Your task to perform on an android device: manage bookmarks in the chrome app Image 0: 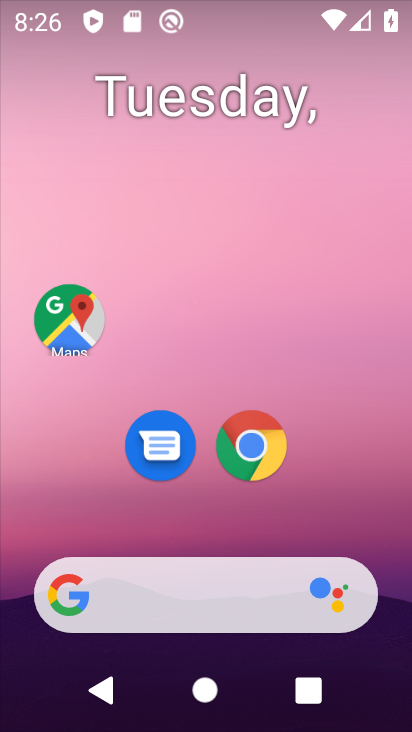
Step 0: drag from (360, 713) to (225, 220)
Your task to perform on an android device: manage bookmarks in the chrome app Image 1: 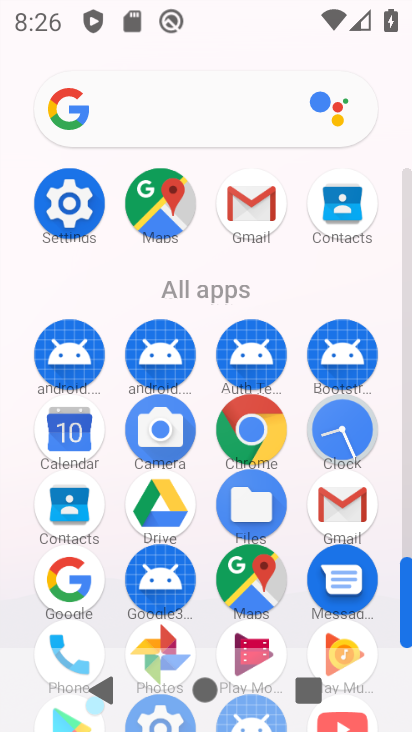
Step 1: click (246, 419)
Your task to perform on an android device: manage bookmarks in the chrome app Image 2: 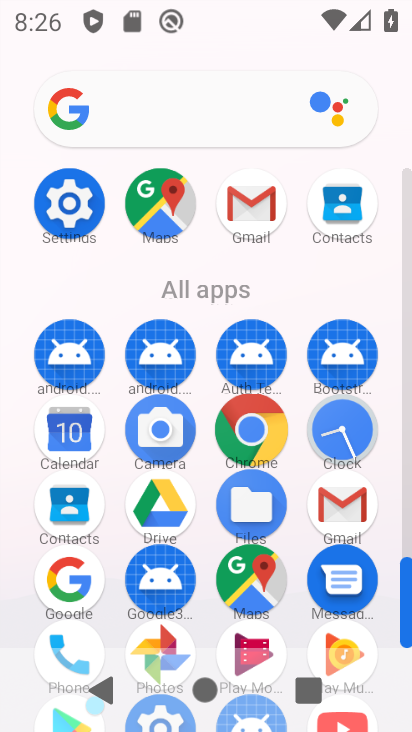
Step 2: click (246, 419)
Your task to perform on an android device: manage bookmarks in the chrome app Image 3: 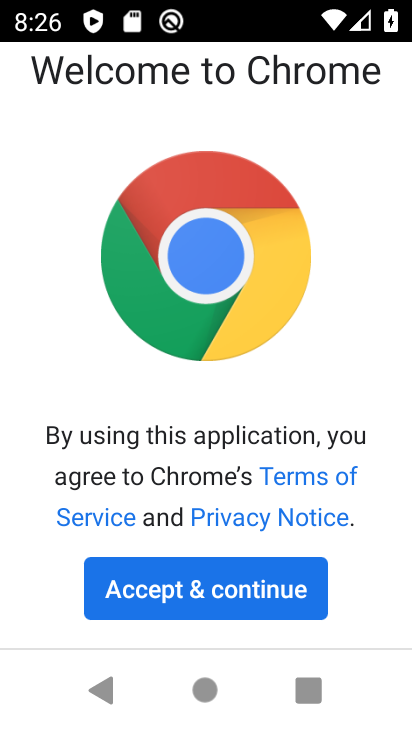
Step 3: click (211, 589)
Your task to perform on an android device: manage bookmarks in the chrome app Image 4: 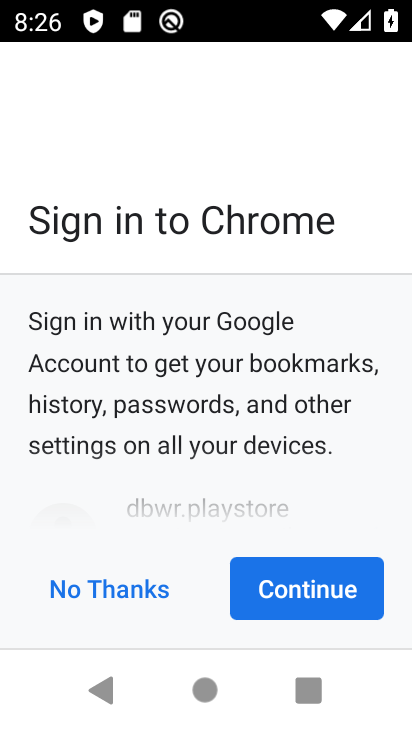
Step 4: click (279, 586)
Your task to perform on an android device: manage bookmarks in the chrome app Image 5: 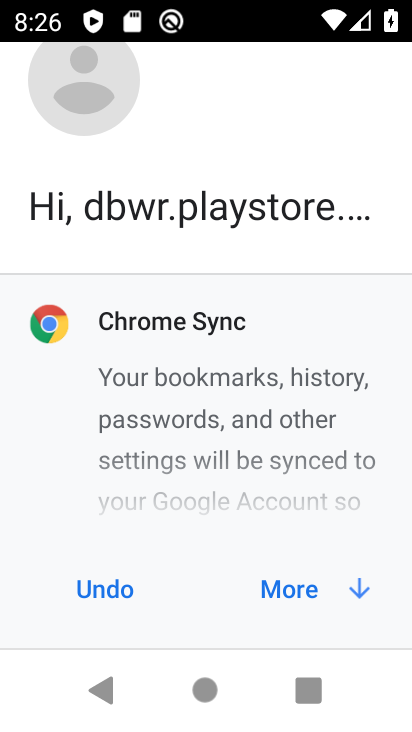
Step 5: click (279, 586)
Your task to perform on an android device: manage bookmarks in the chrome app Image 6: 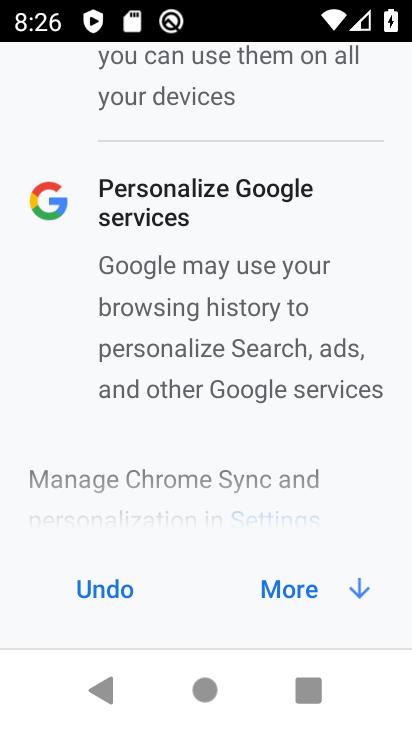
Step 6: click (284, 589)
Your task to perform on an android device: manage bookmarks in the chrome app Image 7: 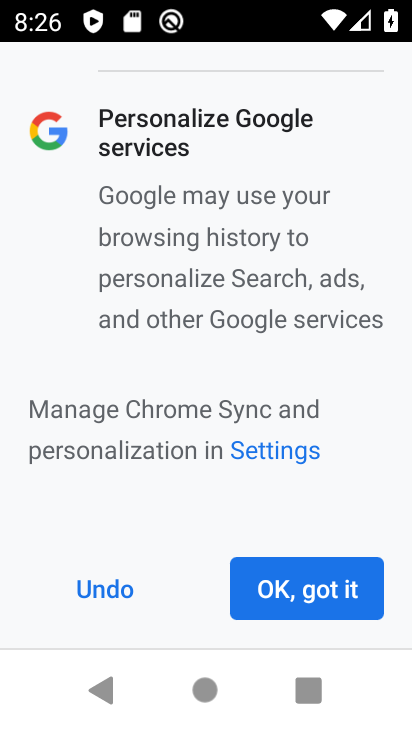
Step 7: click (291, 585)
Your task to perform on an android device: manage bookmarks in the chrome app Image 8: 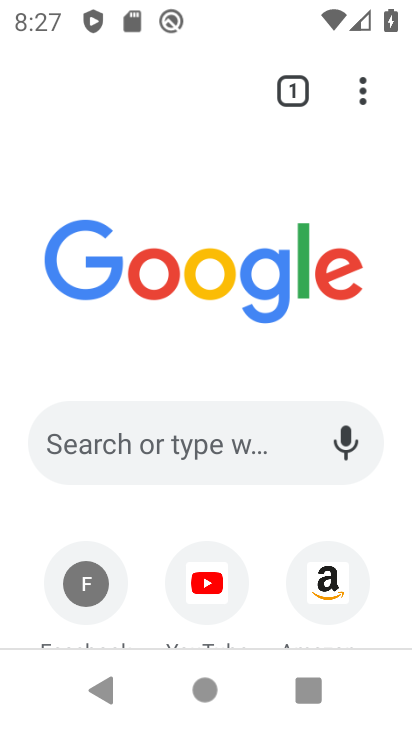
Step 8: drag from (358, 97) to (162, 352)
Your task to perform on an android device: manage bookmarks in the chrome app Image 9: 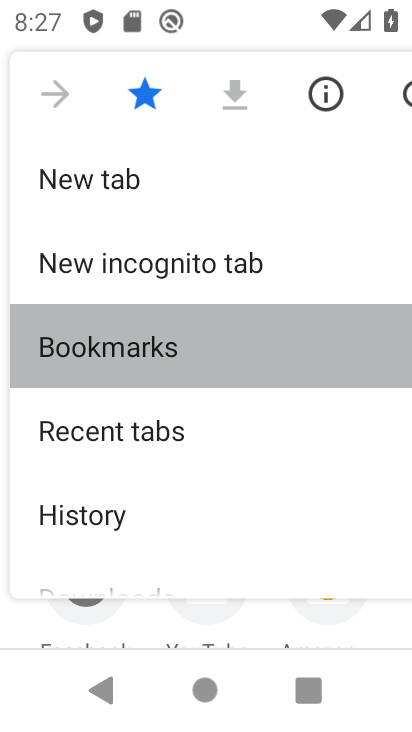
Step 9: click (163, 352)
Your task to perform on an android device: manage bookmarks in the chrome app Image 10: 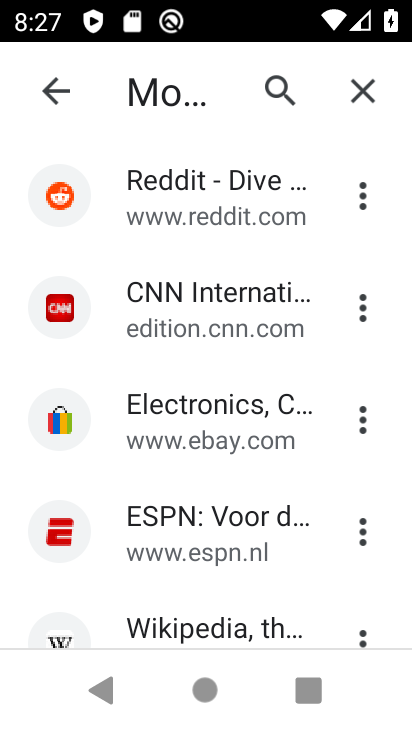
Step 10: click (359, 193)
Your task to perform on an android device: manage bookmarks in the chrome app Image 11: 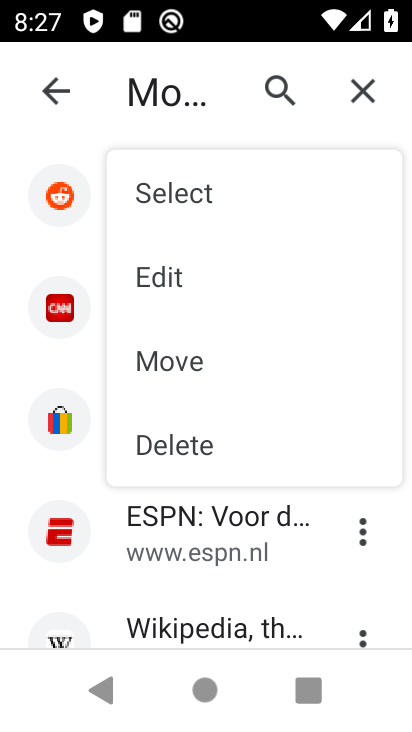
Step 11: click (146, 284)
Your task to perform on an android device: manage bookmarks in the chrome app Image 12: 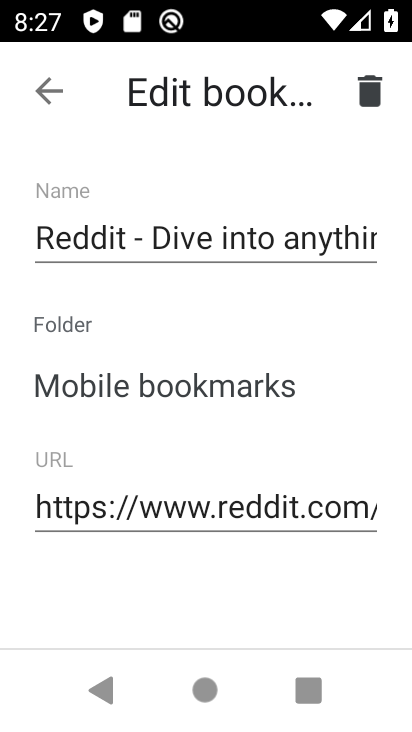
Step 12: click (367, 96)
Your task to perform on an android device: manage bookmarks in the chrome app Image 13: 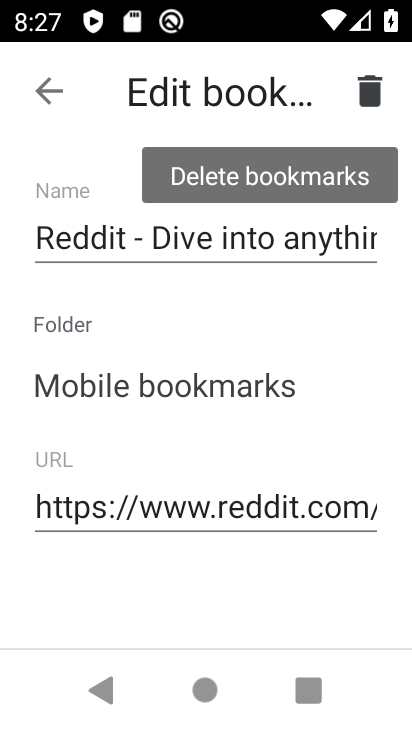
Step 13: click (368, 99)
Your task to perform on an android device: manage bookmarks in the chrome app Image 14: 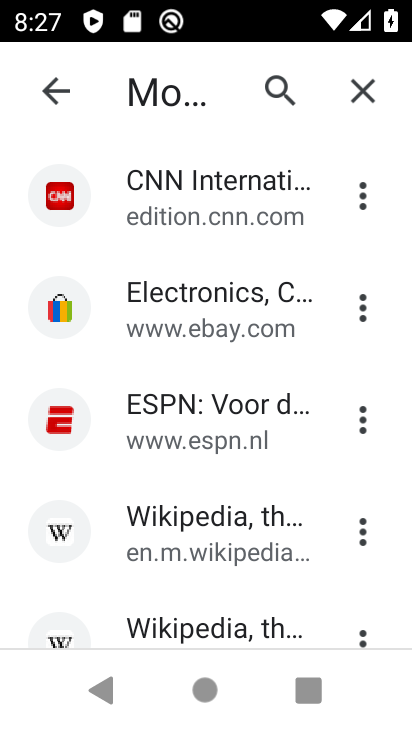
Step 14: task complete